Your task to perform on an android device: Open display settings Image 0: 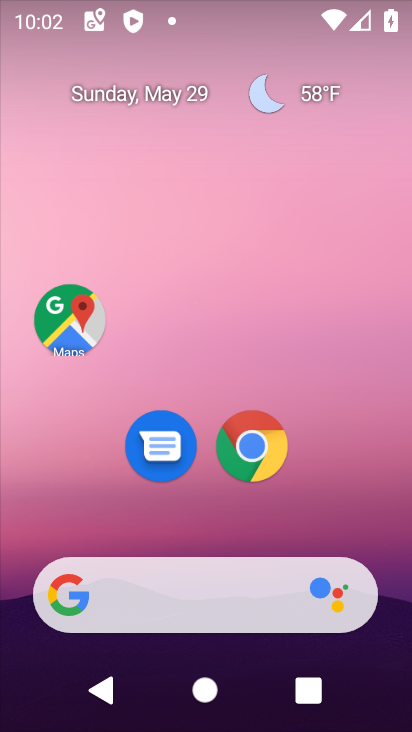
Step 0: drag from (291, 555) to (322, 75)
Your task to perform on an android device: Open display settings Image 1: 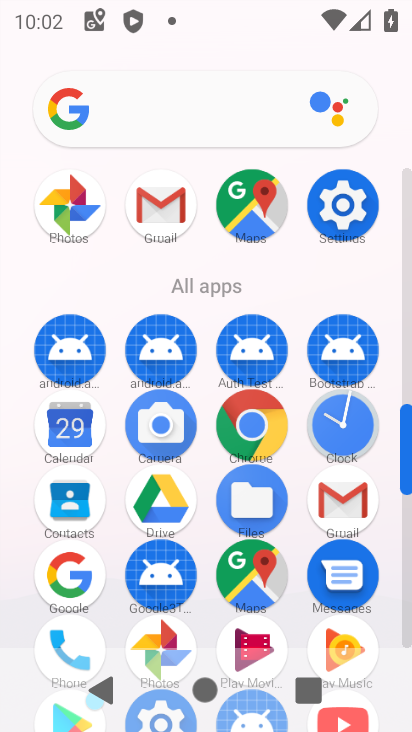
Step 1: click (350, 196)
Your task to perform on an android device: Open display settings Image 2: 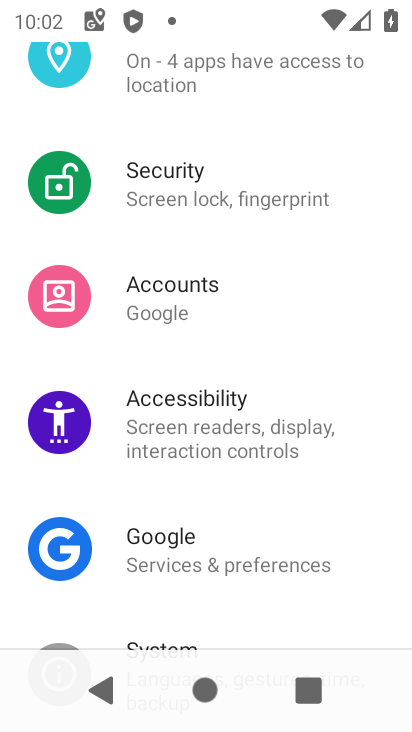
Step 2: drag from (226, 139) to (250, 507)
Your task to perform on an android device: Open display settings Image 3: 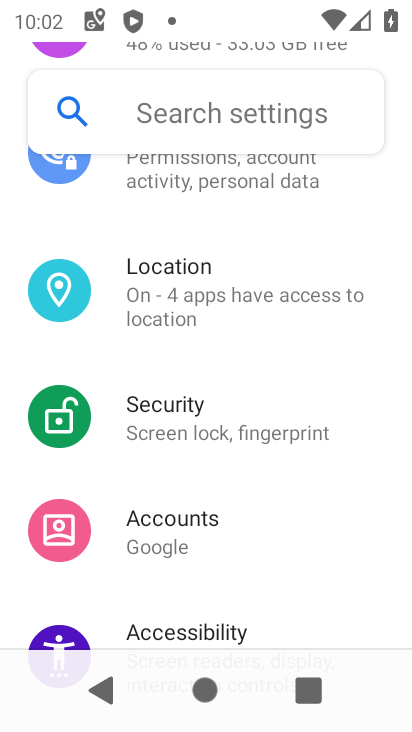
Step 3: drag from (241, 213) to (277, 567)
Your task to perform on an android device: Open display settings Image 4: 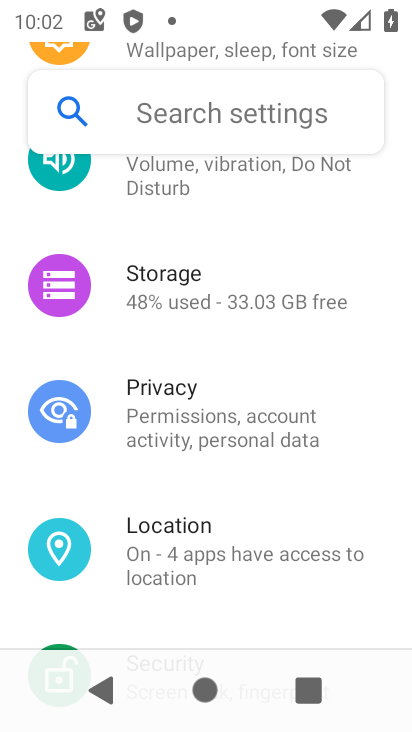
Step 4: drag from (241, 214) to (292, 522)
Your task to perform on an android device: Open display settings Image 5: 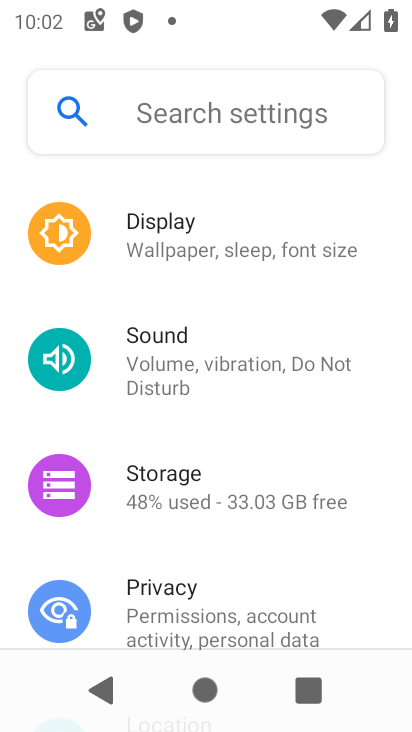
Step 5: click (205, 225)
Your task to perform on an android device: Open display settings Image 6: 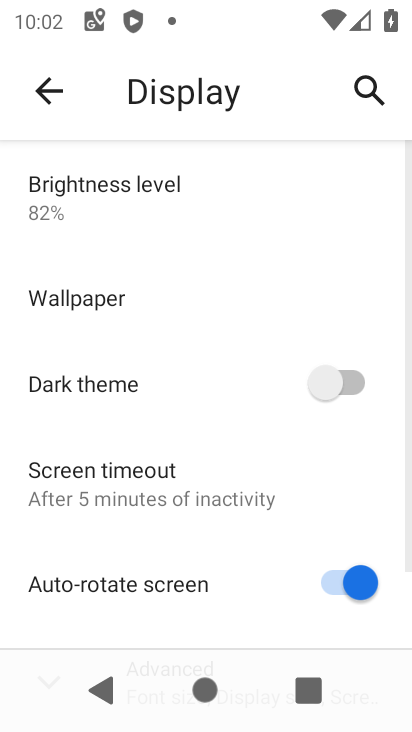
Step 6: drag from (239, 612) to (226, 188)
Your task to perform on an android device: Open display settings Image 7: 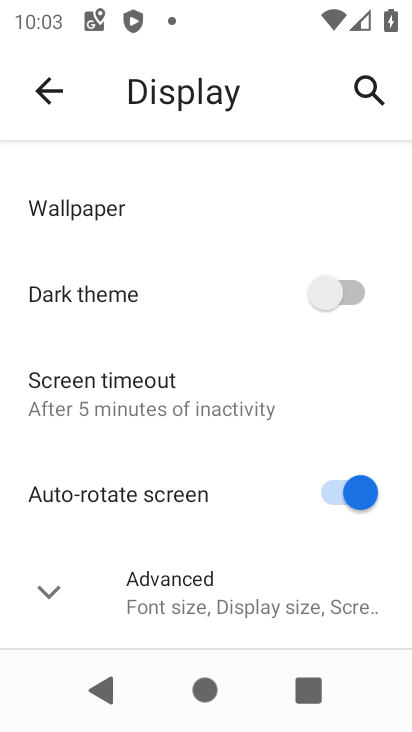
Step 7: click (176, 595)
Your task to perform on an android device: Open display settings Image 8: 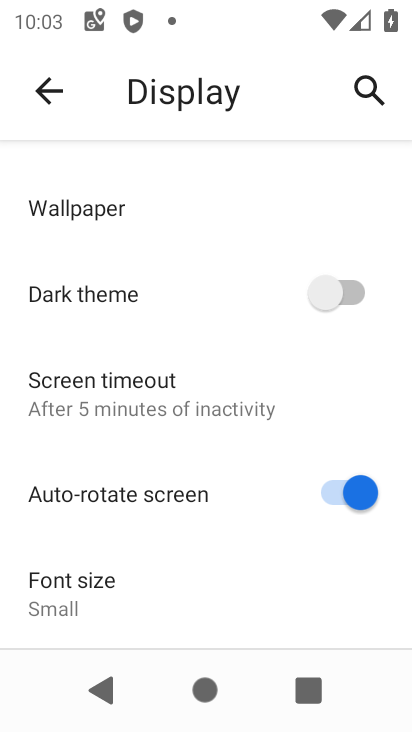
Step 8: task complete